Your task to perform on an android device: View the shopping cart on amazon.com. Search for acer predator on amazon.com, select the first entry, add it to the cart, then select checkout. Image 0: 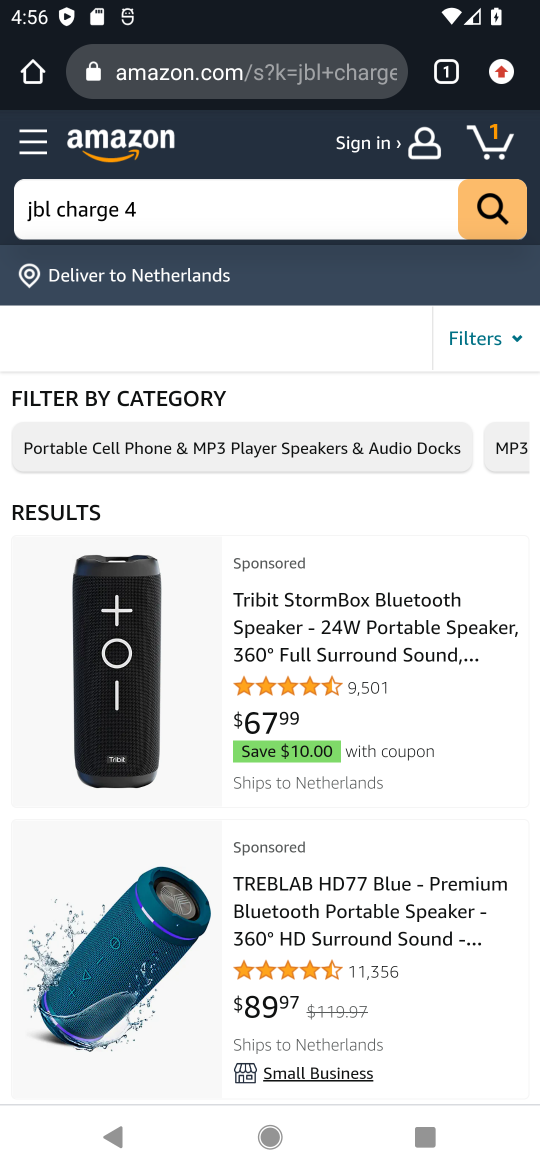
Step 0: click (242, 207)
Your task to perform on an android device: View the shopping cart on amazon.com. Search for acer predator on amazon.com, select the first entry, add it to the cart, then select checkout. Image 1: 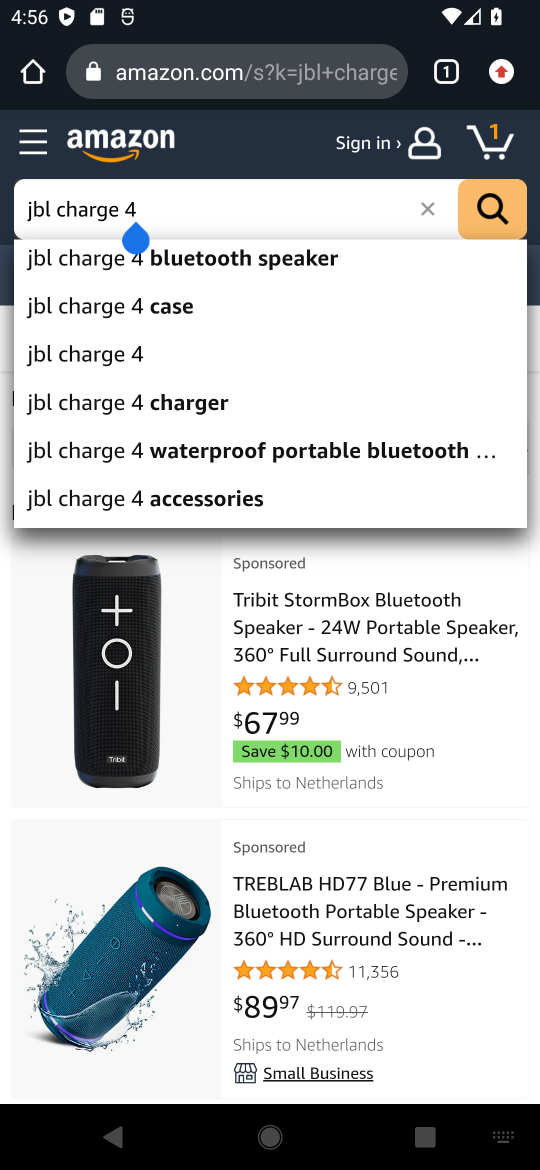
Step 1: click (428, 201)
Your task to perform on an android device: View the shopping cart on amazon.com. Search for acer predator on amazon.com, select the first entry, add it to the cart, then select checkout. Image 2: 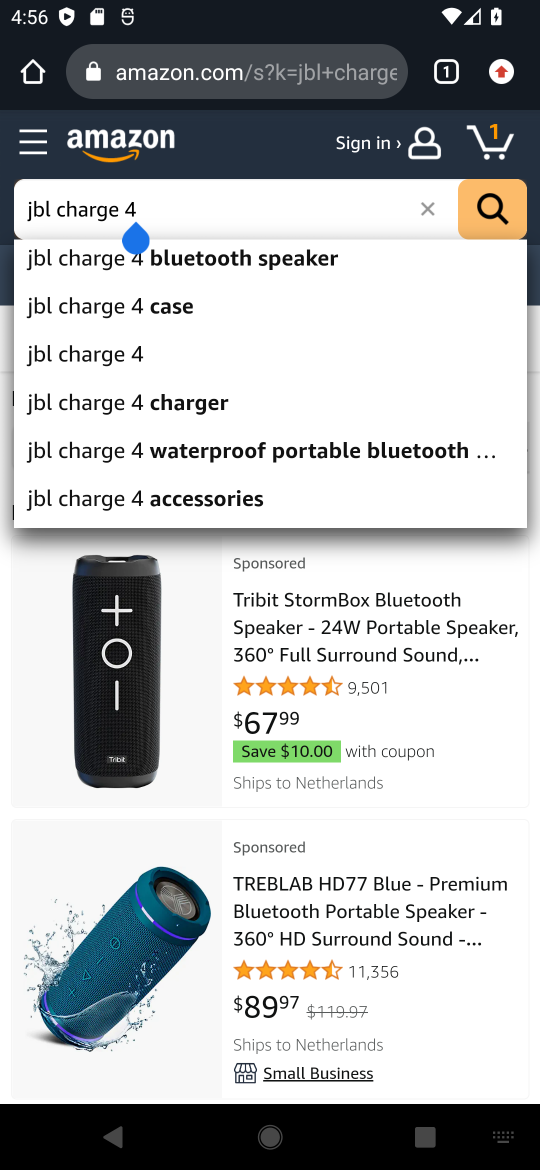
Step 2: click (428, 209)
Your task to perform on an android device: View the shopping cart on amazon.com. Search for acer predator on amazon.com, select the first entry, add it to the cart, then select checkout. Image 3: 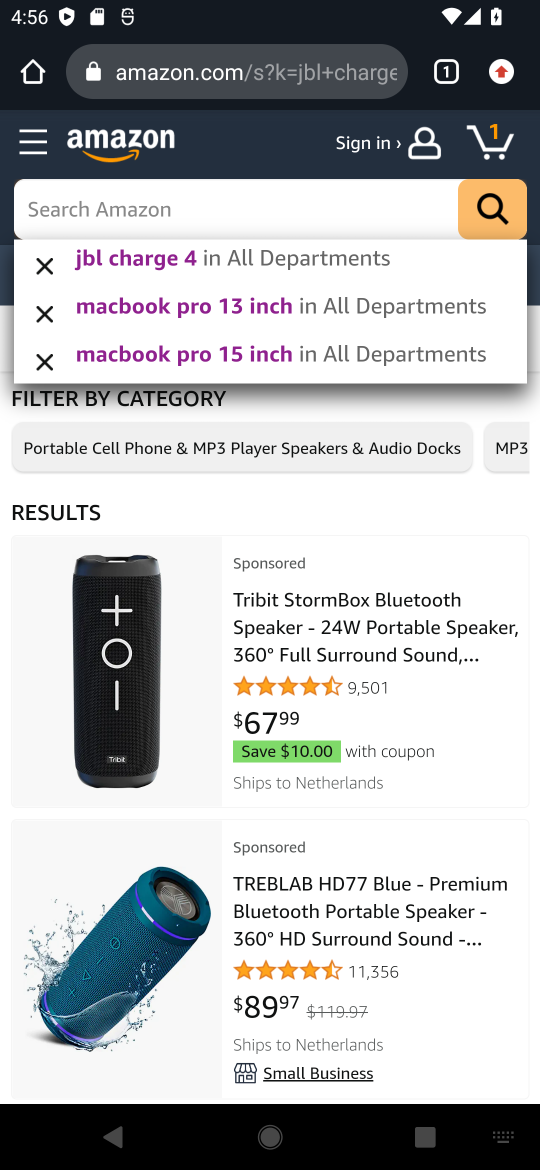
Step 3: type "acer predator"
Your task to perform on an android device: View the shopping cart on amazon.com. Search for acer predator on amazon.com, select the first entry, add it to the cart, then select checkout. Image 4: 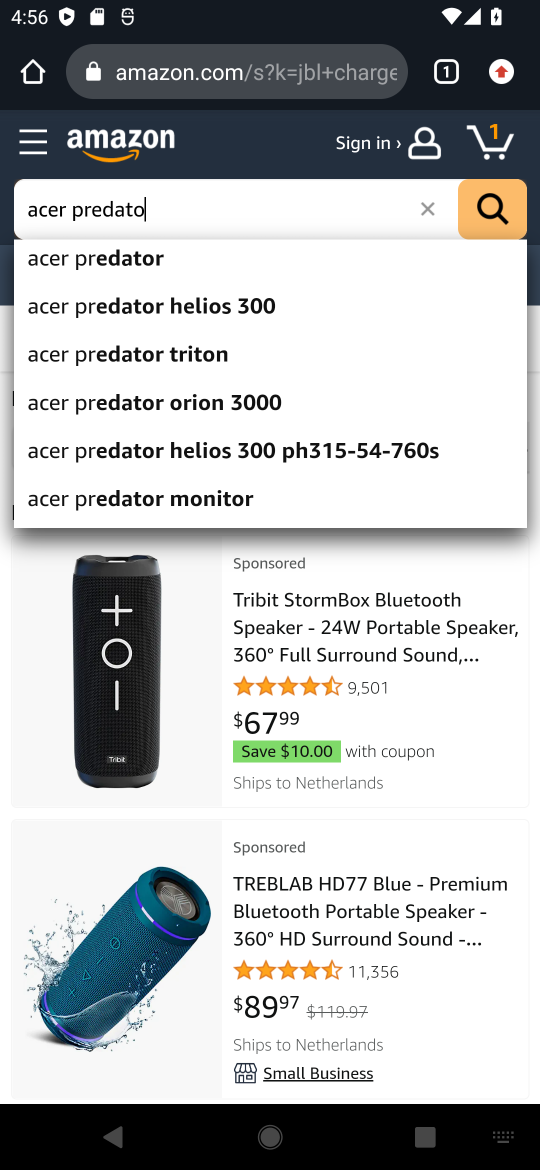
Step 4: press enter
Your task to perform on an android device: View the shopping cart on amazon.com. Search for acer predator on amazon.com, select the first entry, add it to the cart, then select checkout. Image 5: 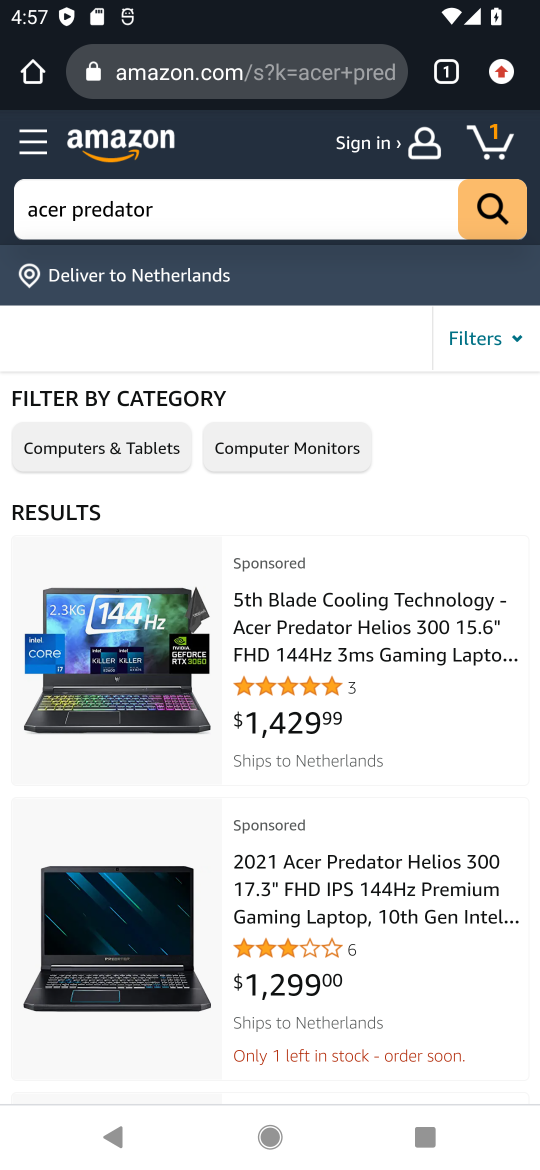
Step 5: click (323, 645)
Your task to perform on an android device: View the shopping cart on amazon.com. Search for acer predator on amazon.com, select the first entry, add it to the cart, then select checkout. Image 6: 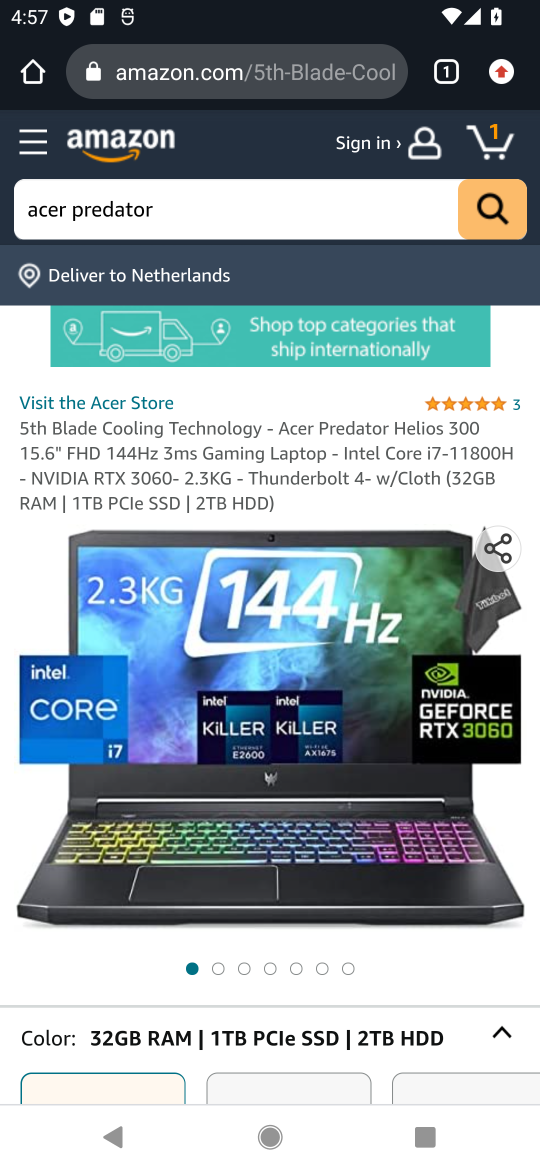
Step 6: drag from (136, 905) to (459, 171)
Your task to perform on an android device: View the shopping cart on amazon.com. Search for acer predator on amazon.com, select the first entry, add it to the cart, then select checkout. Image 7: 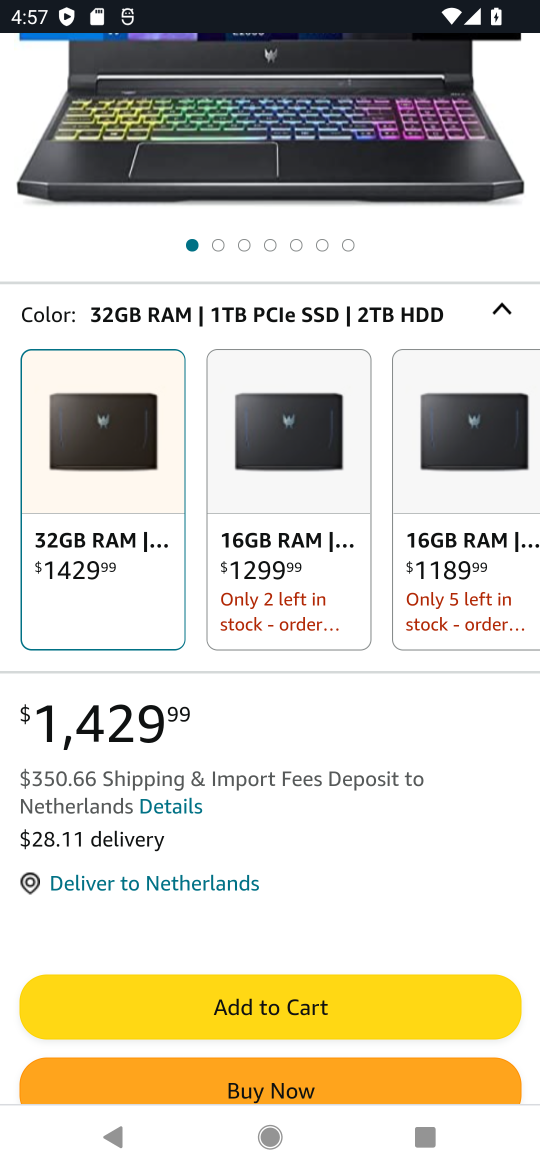
Step 7: click (263, 1013)
Your task to perform on an android device: View the shopping cart on amazon.com. Search for acer predator on amazon.com, select the first entry, add it to the cart, then select checkout. Image 8: 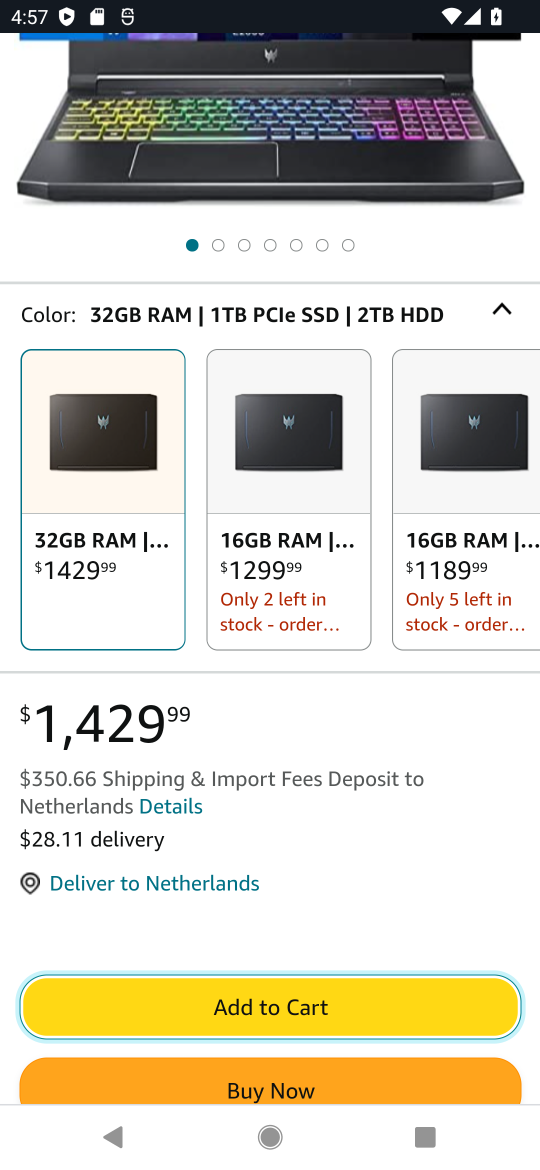
Step 8: click (288, 1003)
Your task to perform on an android device: View the shopping cart on amazon.com. Search for acer predator on amazon.com, select the first entry, add it to the cart, then select checkout. Image 9: 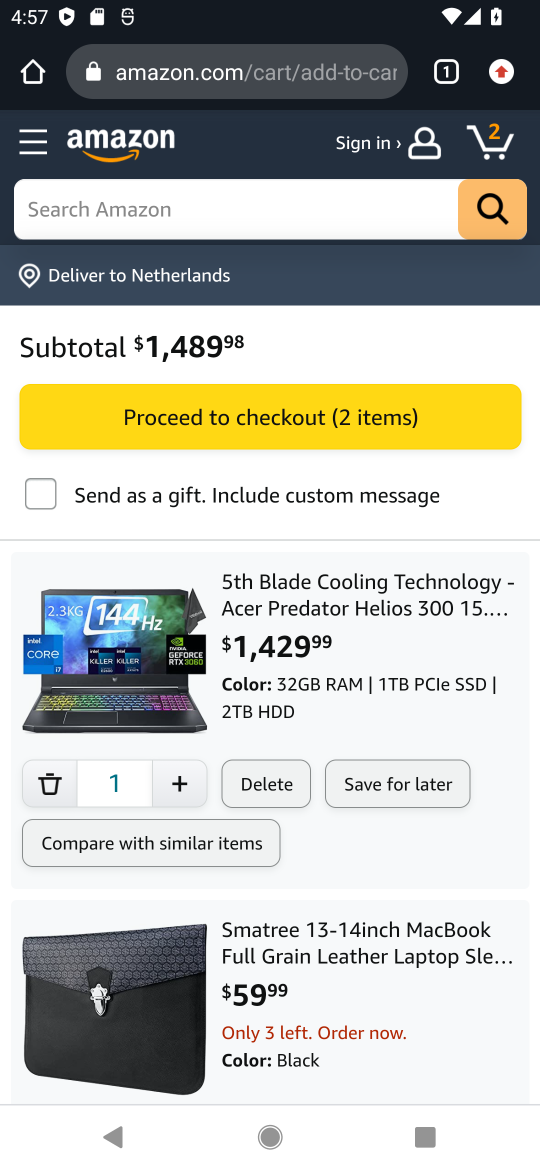
Step 9: click (497, 144)
Your task to perform on an android device: View the shopping cart on amazon.com. Search for acer predator on amazon.com, select the first entry, add it to the cart, then select checkout. Image 10: 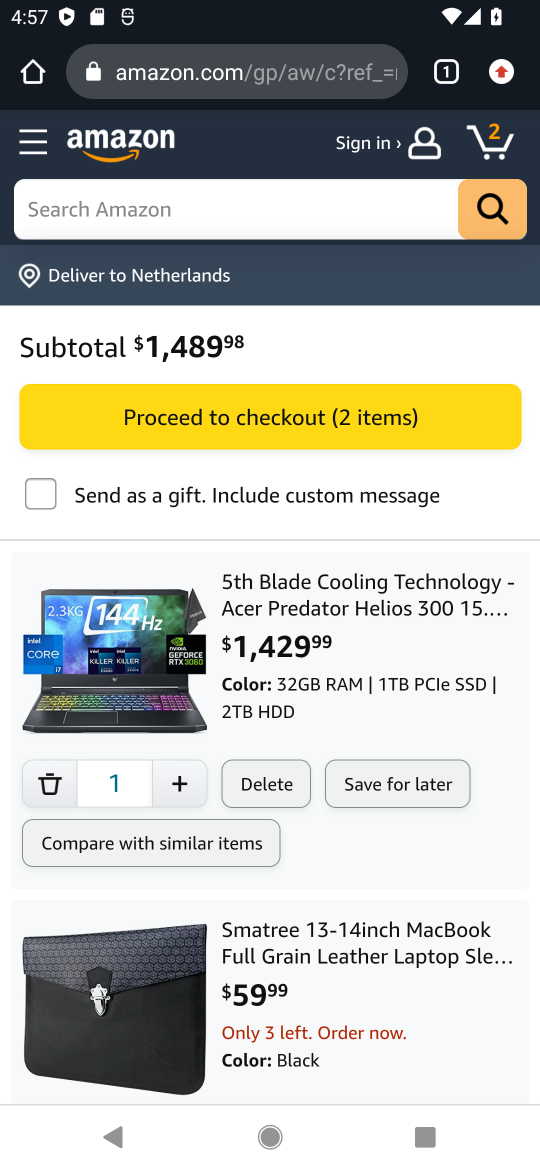
Step 10: click (486, 127)
Your task to perform on an android device: View the shopping cart on amazon.com. Search for acer predator on amazon.com, select the first entry, add it to the cart, then select checkout. Image 11: 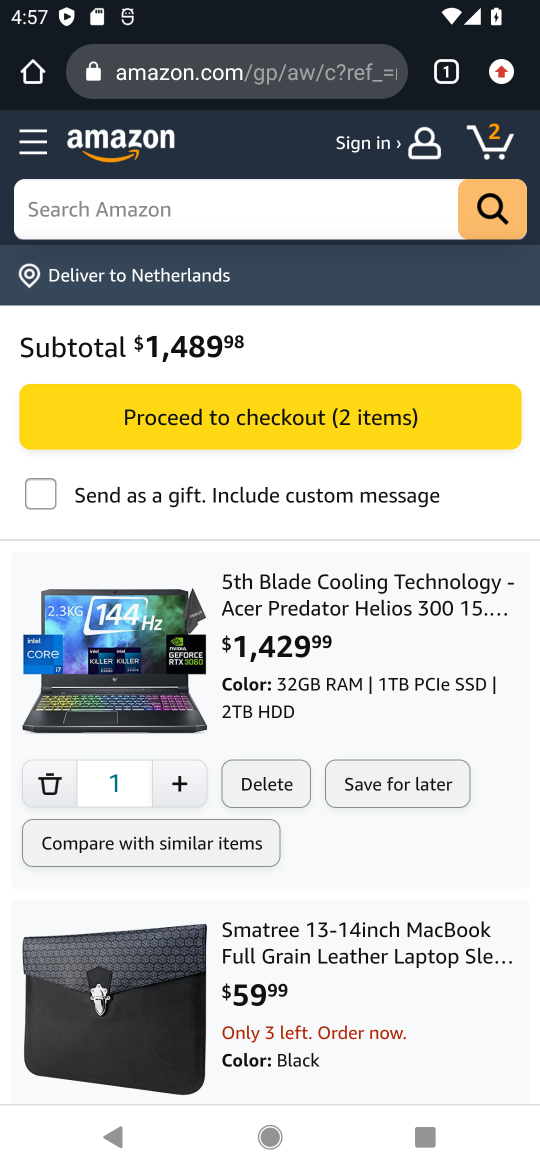
Step 11: drag from (272, 950) to (394, 432)
Your task to perform on an android device: View the shopping cart on amazon.com. Search for acer predator on amazon.com, select the first entry, add it to the cart, then select checkout. Image 12: 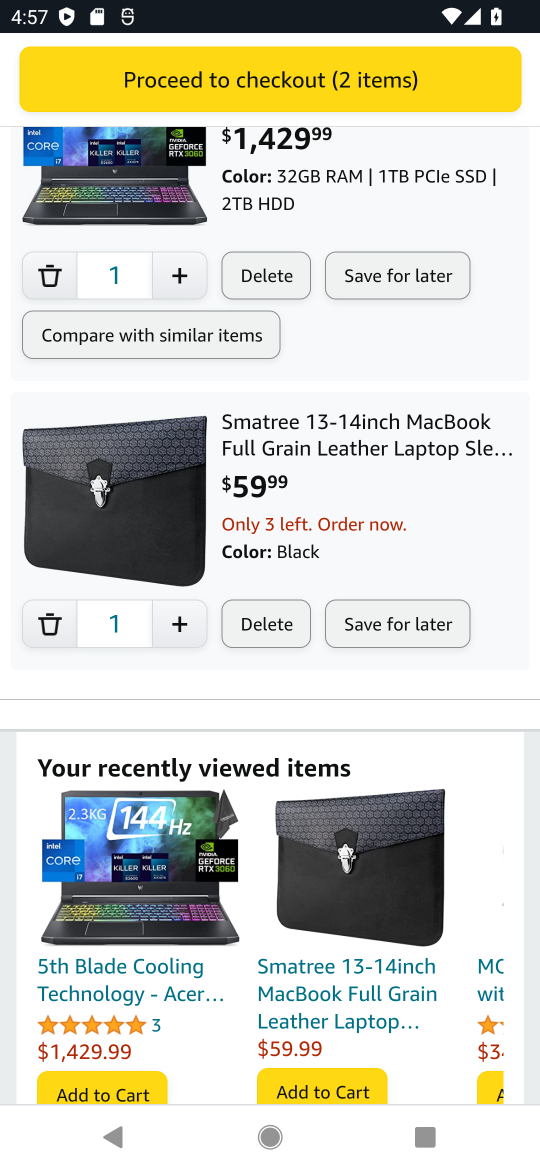
Step 12: click (265, 619)
Your task to perform on an android device: View the shopping cart on amazon.com. Search for acer predator on amazon.com, select the first entry, add it to the cart, then select checkout. Image 13: 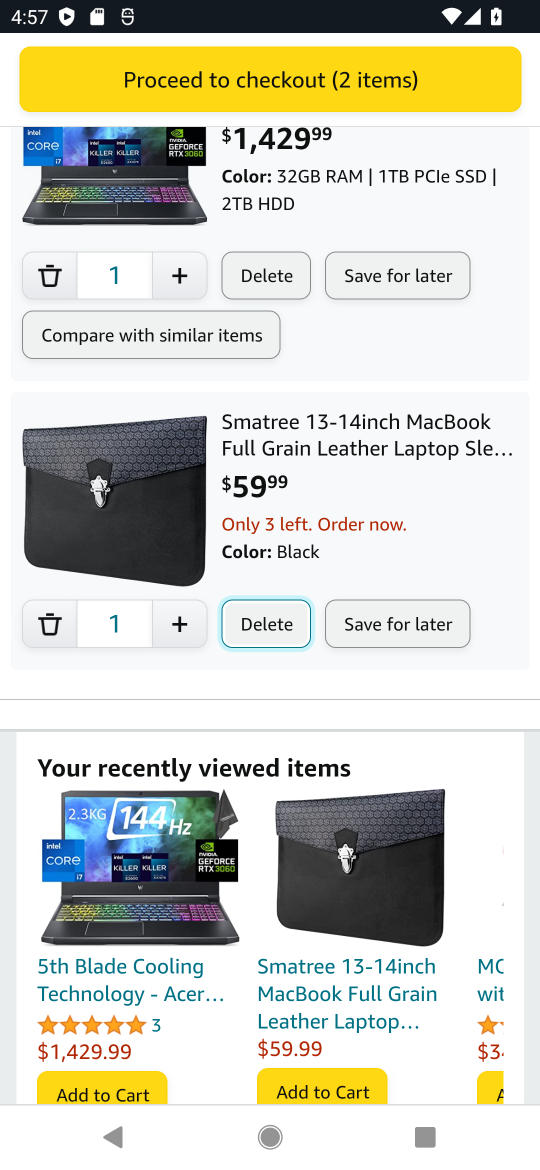
Step 13: click (280, 621)
Your task to perform on an android device: View the shopping cart on amazon.com. Search for acer predator on amazon.com, select the first entry, add it to the cart, then select checkout. Image 14: 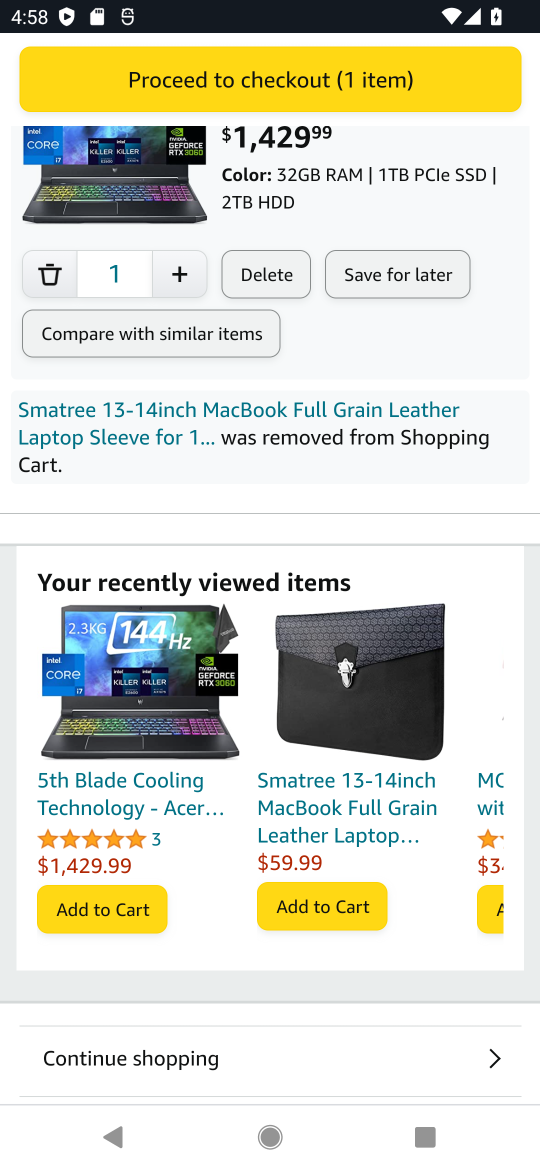
Step 14: click (288, 61)
Your task to perform on an android device: View the shopping cart on amazon.com. Search for acer predator on amazon.com, select the first entry, add it to the cart, then select checkout. Image 15: 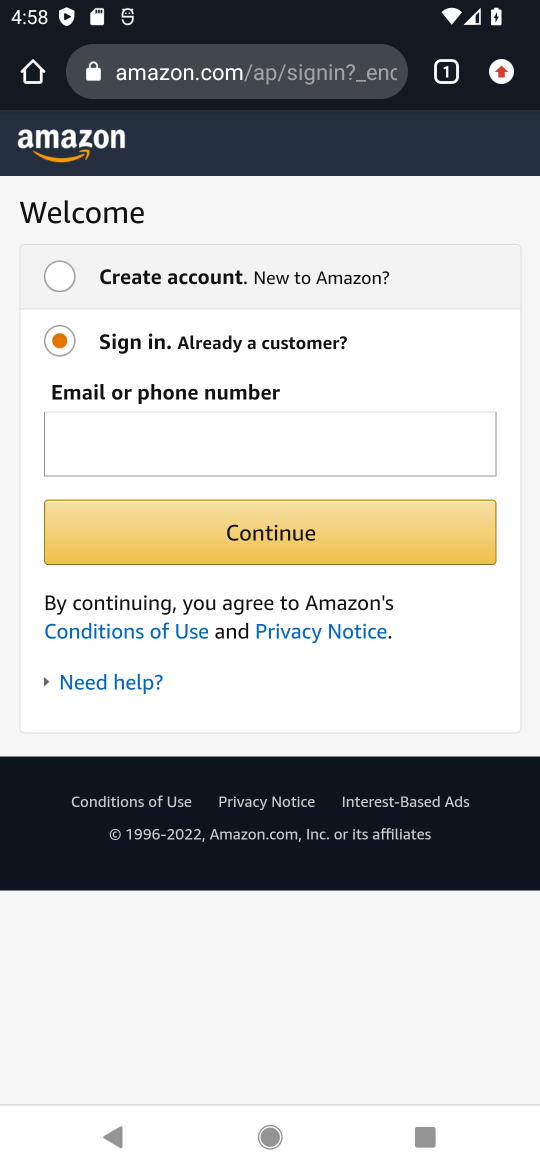
Step 15: task complete